Your task to perform on an android device: open a bookmark in the chrome app Image 0: 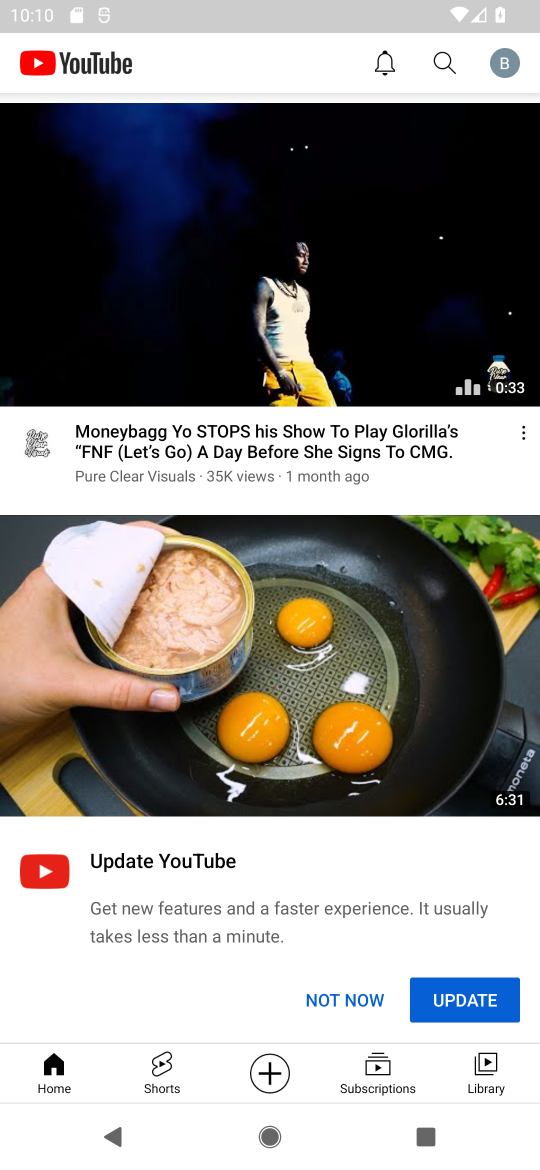
Step 0: press home button
Your task to perform on an android device: open a bookmark in the chrome app Image 1: 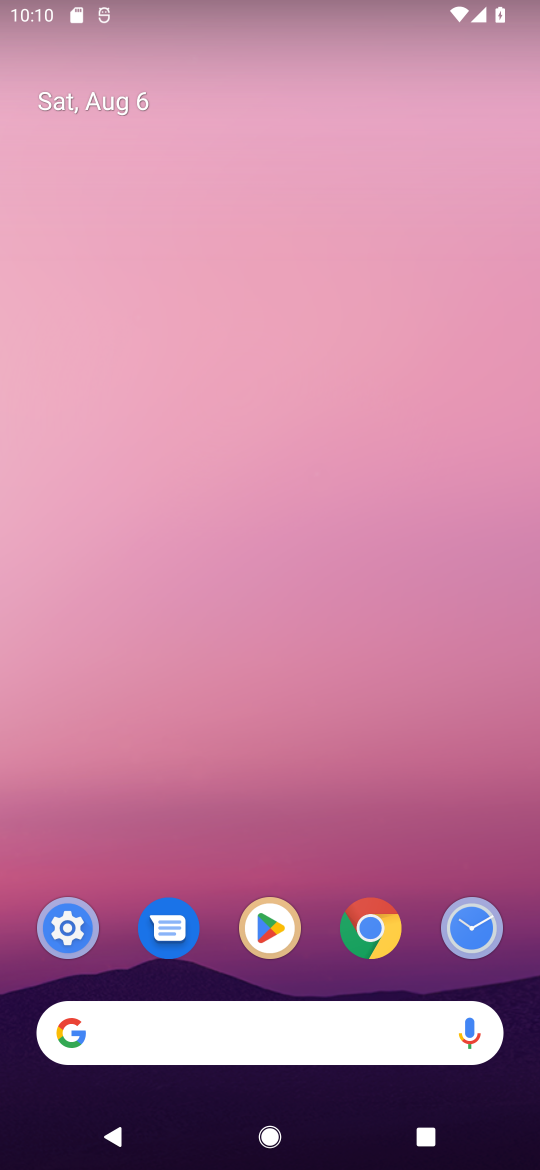
Step 1: click (387, 932)
Your task to perform on an android device: open a bookmark in the chrome app Image 2: 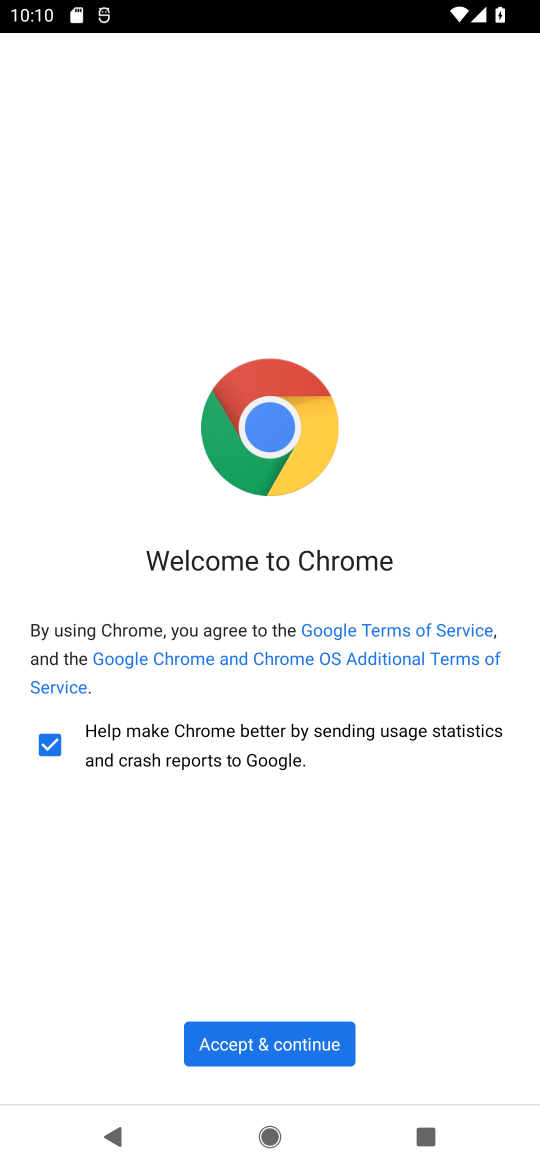
Step 2: click (260, 1053)
Your task to perform on an android device: open a bookmark in the chrome app Image 3: 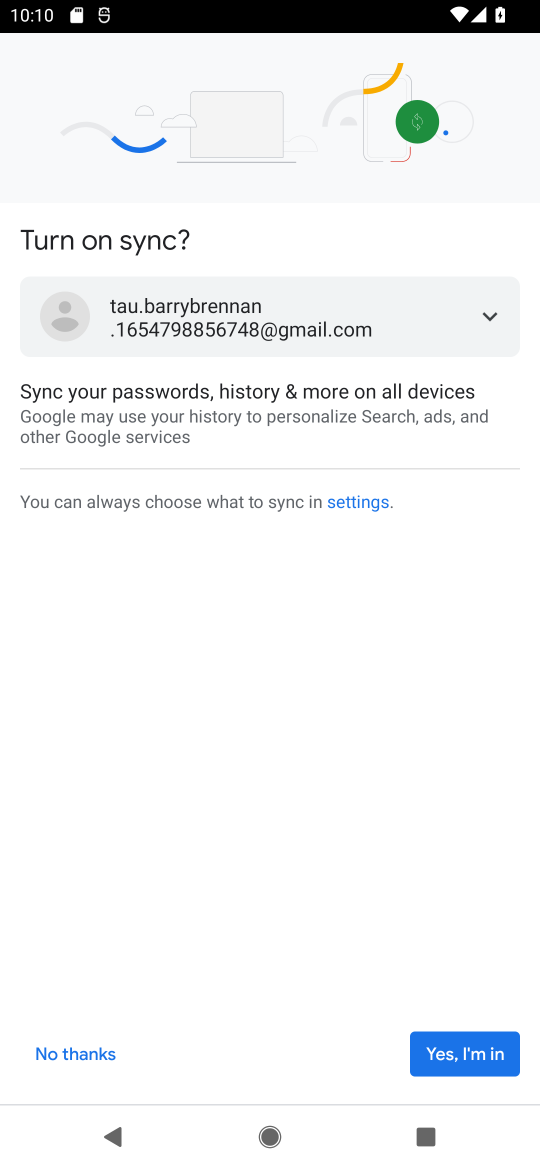
Step 3: click (433, 1048)
Your task to perform on an android device: open a bookmark in the chrome app Image 4: 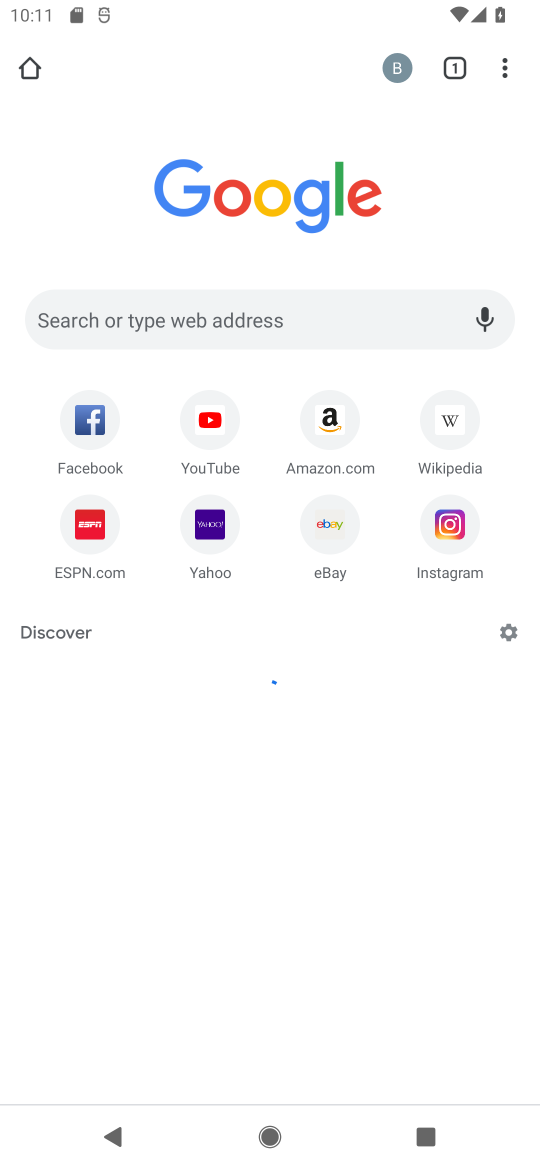
Step 4: click (503, 76)
Your task to perform on an android device: open a bookmark in the chrome app Image 5: 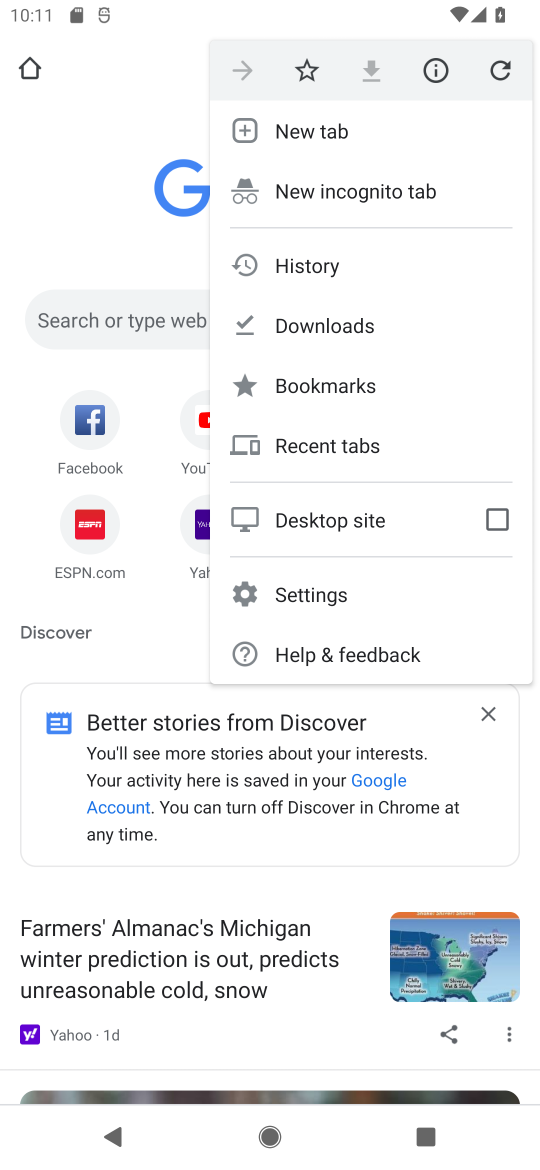
Step 5: click (340, 388)
Your task to perform on an android device: open a bookmark in the chrome app Image 6: 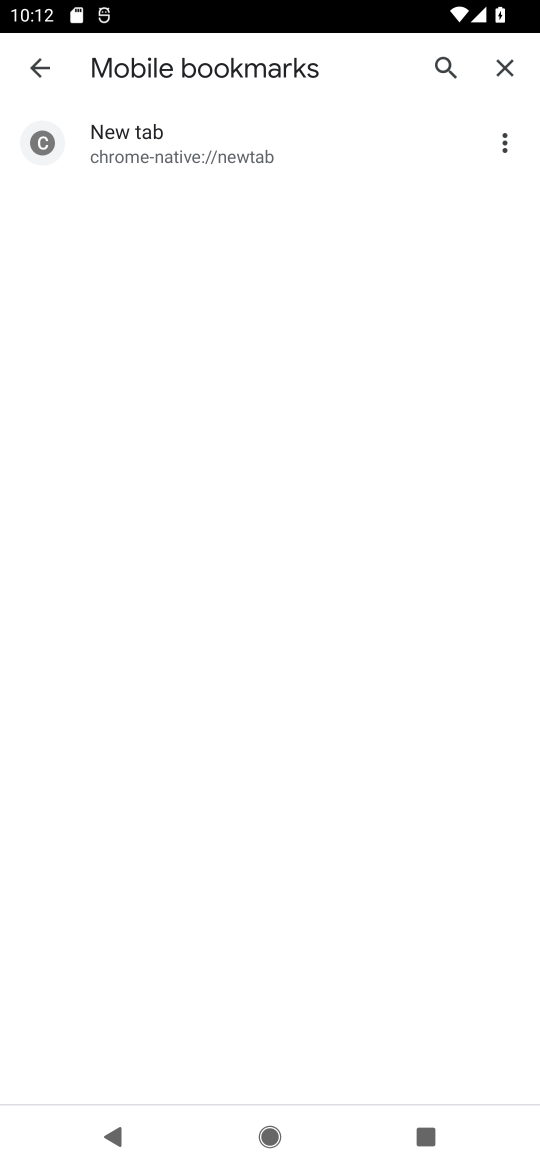
Step 6: task complete